Your task to perform on an android device: Open settings Image 0: 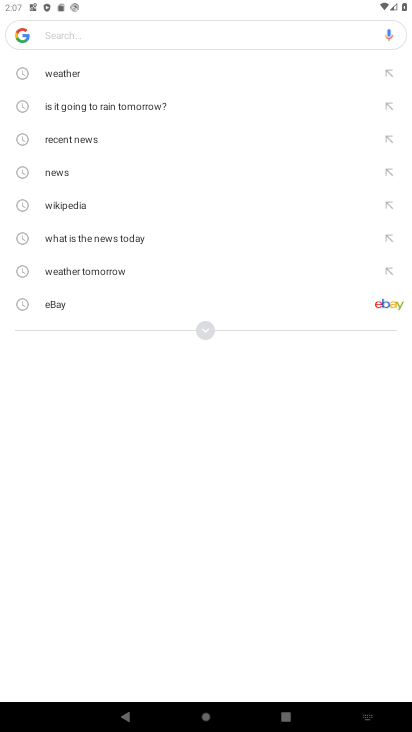
Step 0: press home button
Your task to perform on an android device: Open settings Image 1: 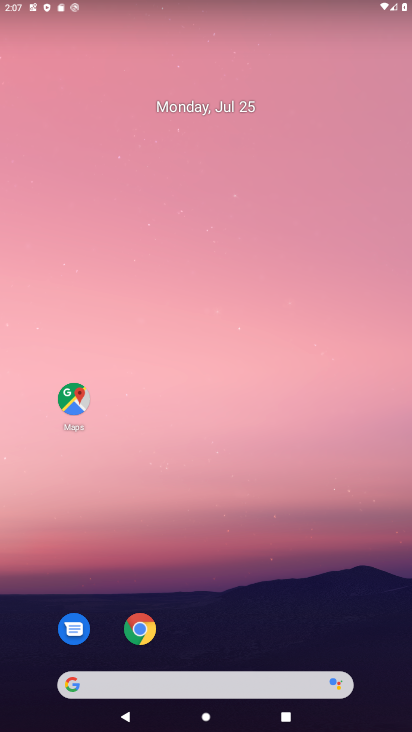
Step 1: drag from (230, 645) to (217, 7)
Your task to perform on an android device: Open settings Image 2: 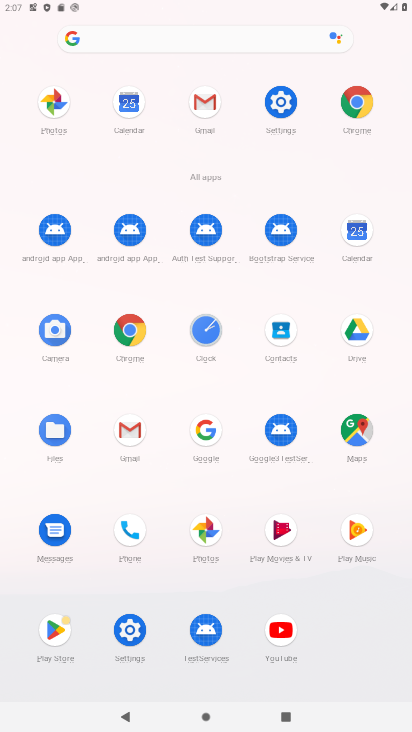
Step 2: click (133, 636)
Your task to perform on an android device: Open settings Image 3: 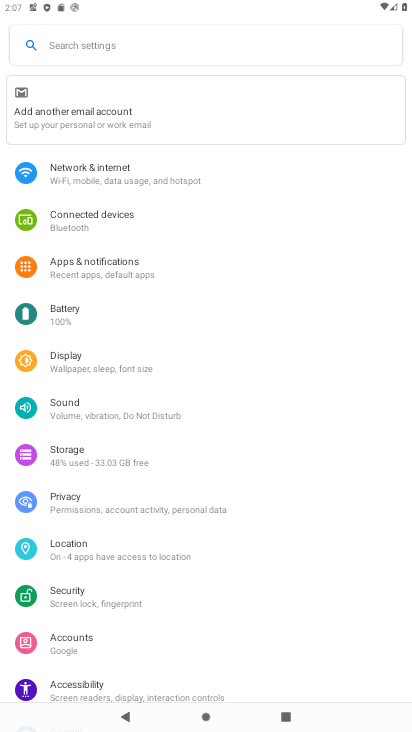
Step 3: task complete